Your task to perform on an android device: Do I have any events this weekend? Image 0: 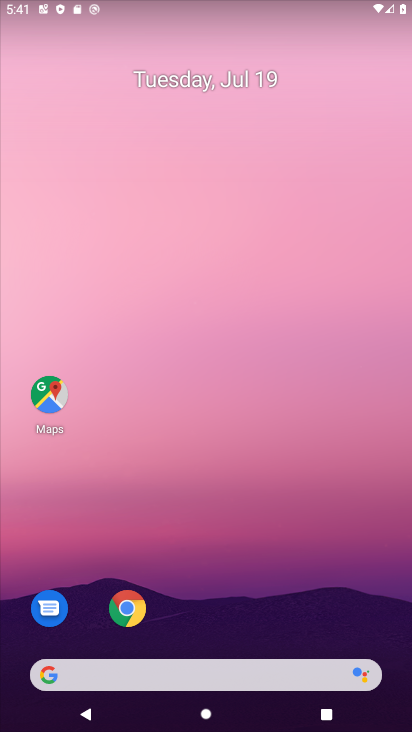
Step 0: drag from (287, 676) to (285, 5)
Your task to perform on an android device: Do I have any events this weekend? Image 1: 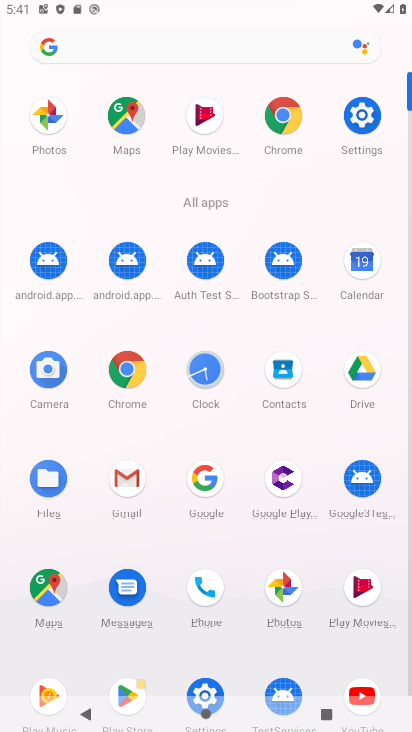
Step 1: click (368, 265)
Your task to perform on an android device: Do I have any events this weekend? Image 2: 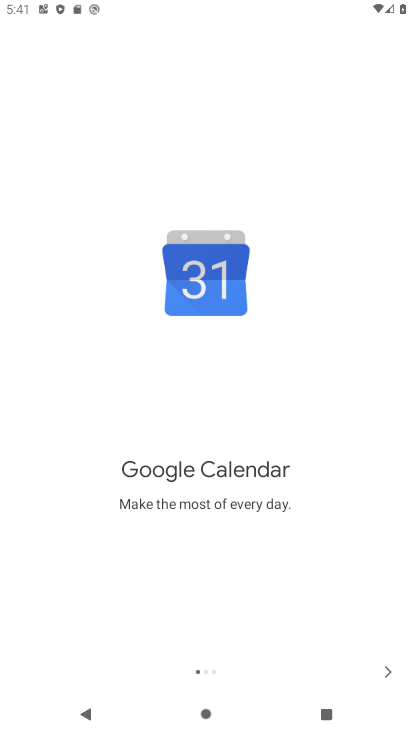
Step 2: click (394, 670)
Your task to perform on an android device: Do I have any events this weekend? Image 3: 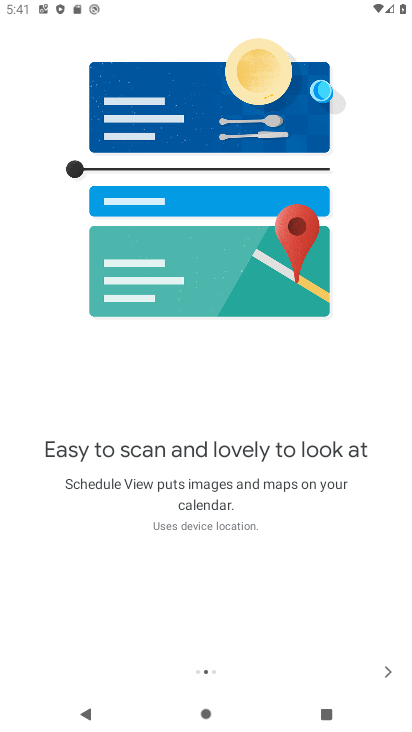
Step 3: click (382, 672)
Your task to perform on an android device: Do I have any events this weekend? Image 4: 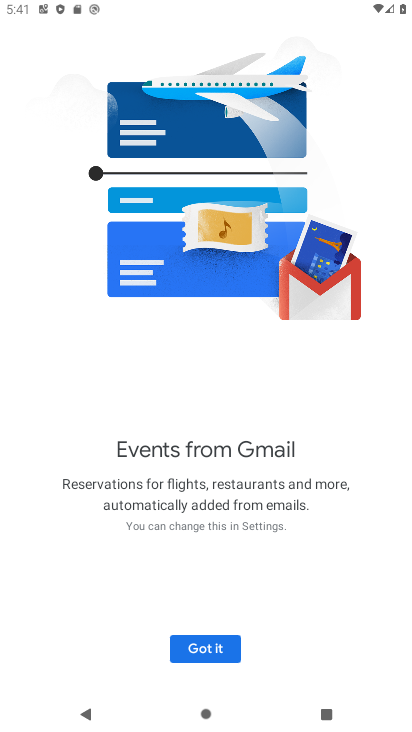
Step 4: click (223, 645)
Your task to perform on an android device: Do I have any events this weekend? Image 5: 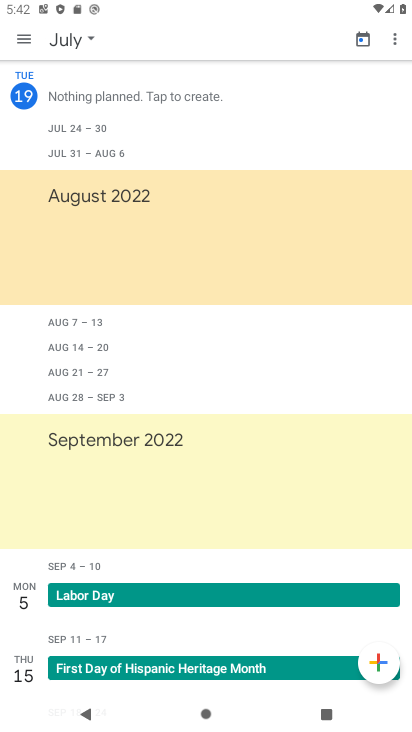
Step 5: click (90, 37)
Your task to perform on an android device: Do I have any events this weekend? Image 6: 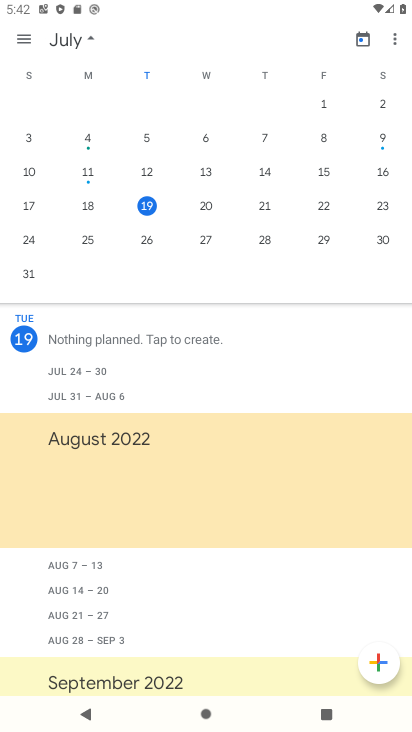
Step 6: click (385, 203)
Your task to perform on an android device: Do I have any events this weekend? Image 7: 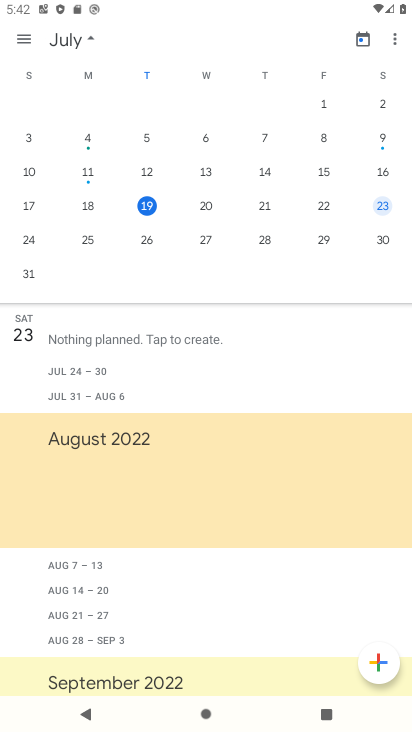
Step 7: task complete